Your task to perform on an android device: Go to CNN.com Image 0: 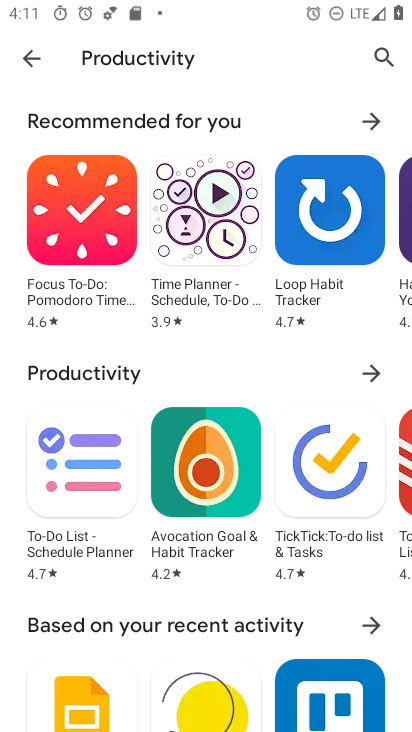
Step 0: press home button
Your task to perform on an android device: Go to CNN.com Image 1: 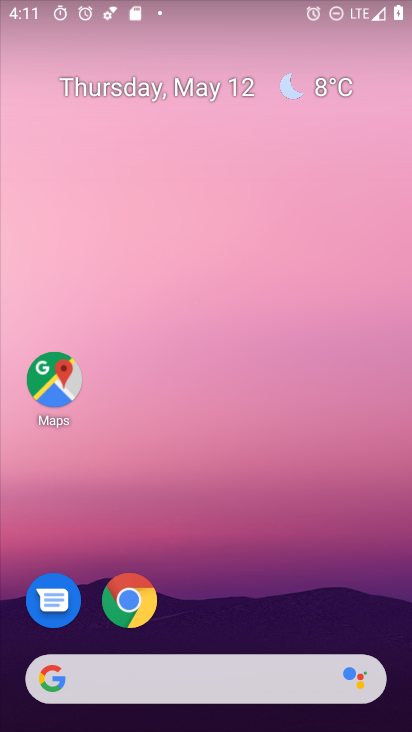
Step 1: click (126, 598)
Your task to perform on an android device: Go to CNN.com Image 2: 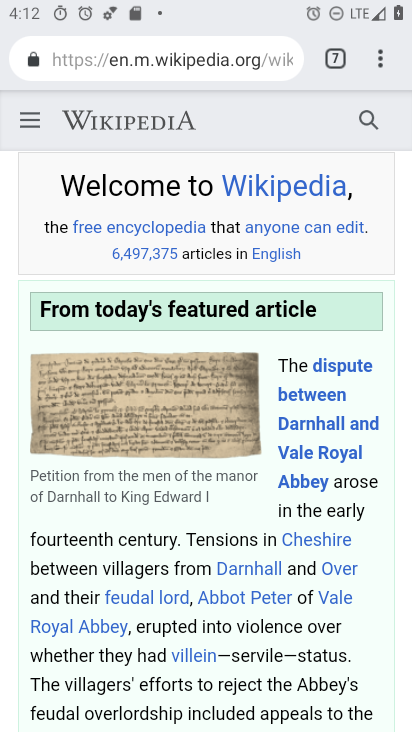
Step 2: click (384, 66)
Your task to perform on an android device: Go to CNN.com Image 3: 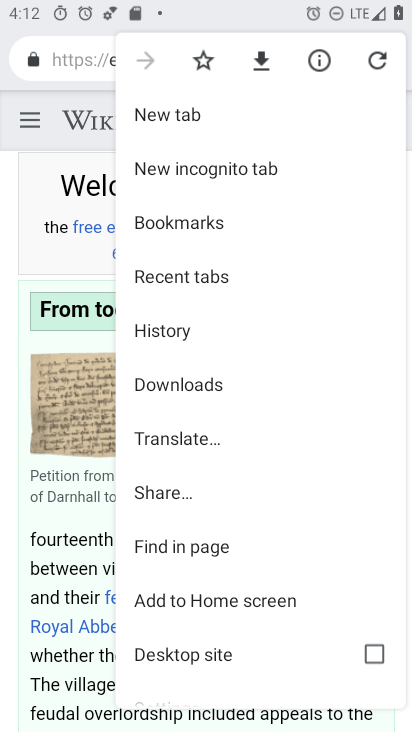
Step 3: click (167, 112)
Your task to perform on an android device: Go to CNN.com Image 4: 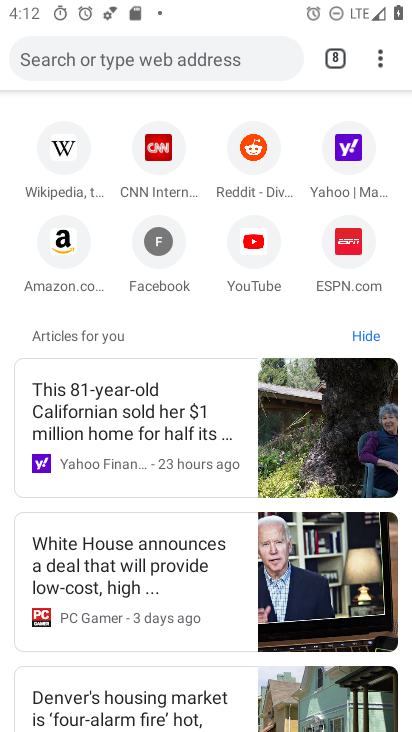
Step 4: click (157, 164)
Your task to perform on an android device: Go to CNN.com Image 5: 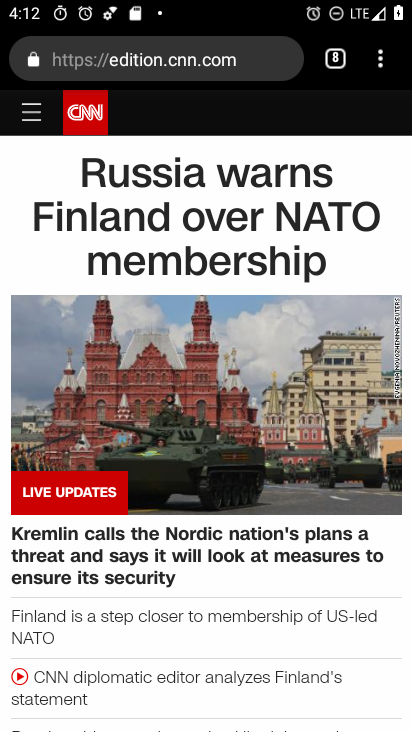
Step 5: task complete